Your task to perform on an android device: Go to CNN.com Image 0: 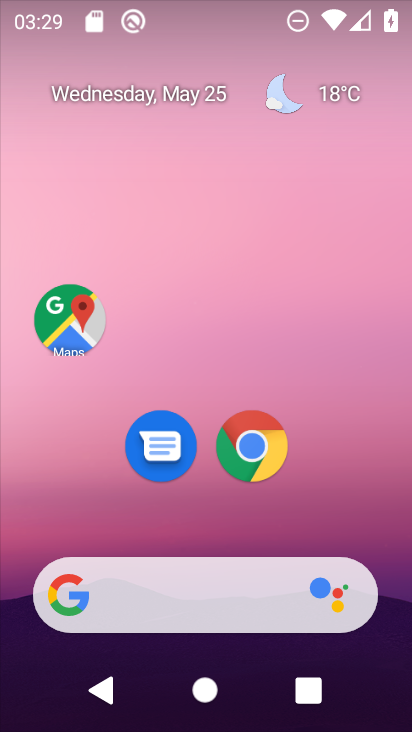
Step 0: click (250, 445)
Your task to perform on an android device: Go to CNN.com Image 1: 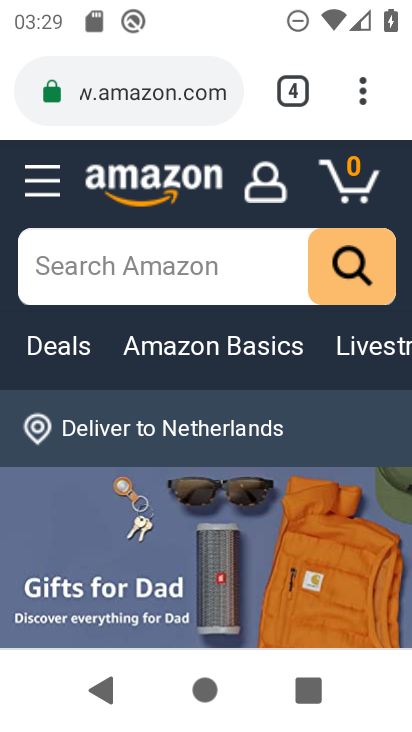
Step 1: click (164, 99)
Your task to perform on an android device: Go to CNN.com Image 2: 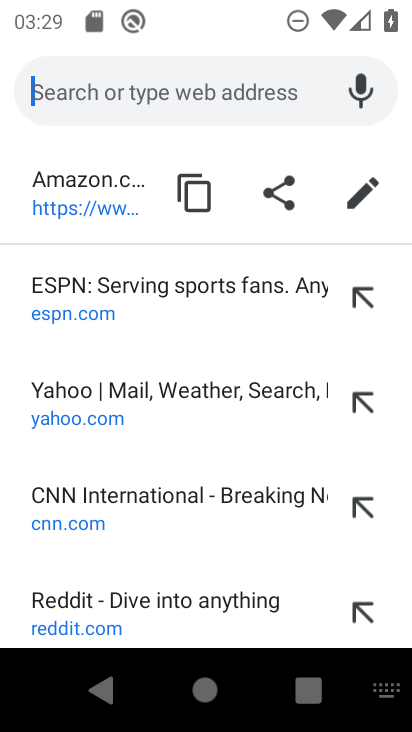
Step 2: click (238, 480)
Your task to perform on an android device: Go to CNN.com Image 3: 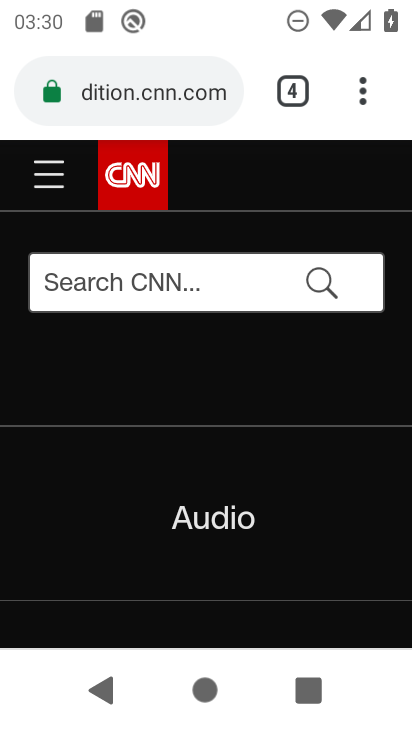
Step 3: task complete